Your task to perform on an android device: Open the Play Movies app and select the watchlist tab. Image 0: 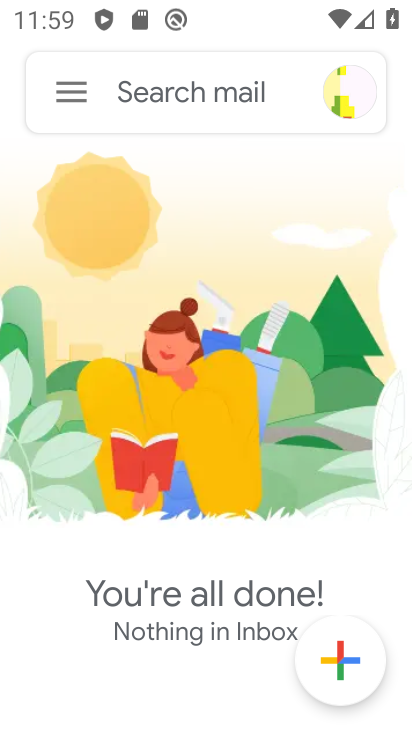
Step 0: press home button
Your task to perform on an android device: Open the Play Movies app and select the watchlist tab. Image 1: 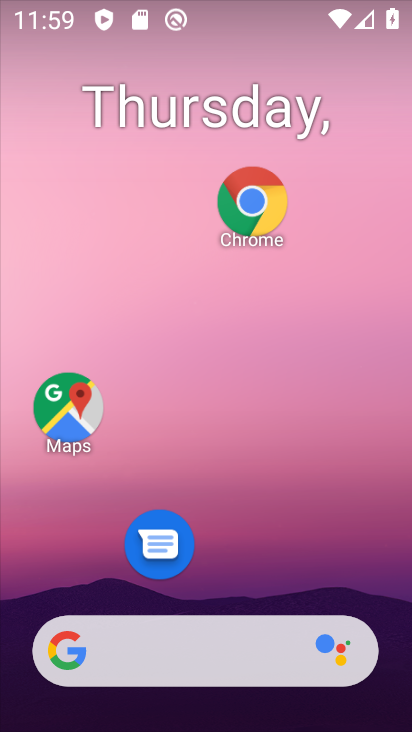
Step 1: drag from (232, 600) to (334, 3)
Your task to perform on an android device: Open the Play Movies app and select the watchlist tab. Image 2: 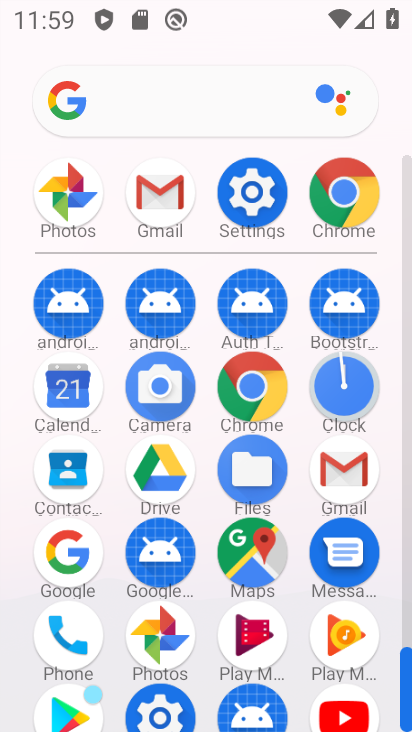
Step 2: click (258, 649)
Your task to perform on an android device: Open the Play Movies app and select the watchlist tab. Image 3: 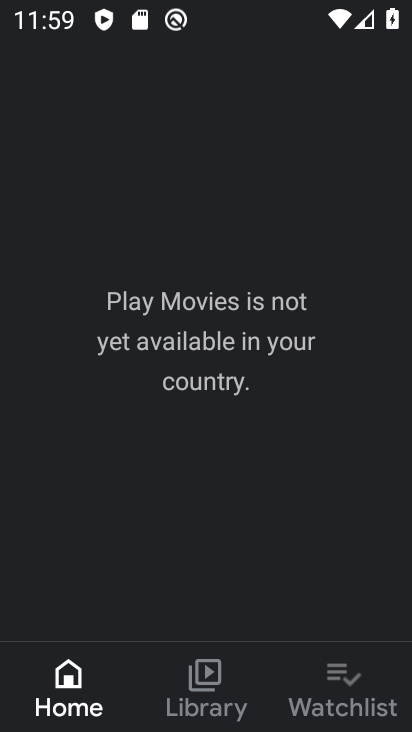
Step 3: click (332, 701)
Your task to perform on an android device: Open the Play Movies app and select the watchlist tab. Image 4: 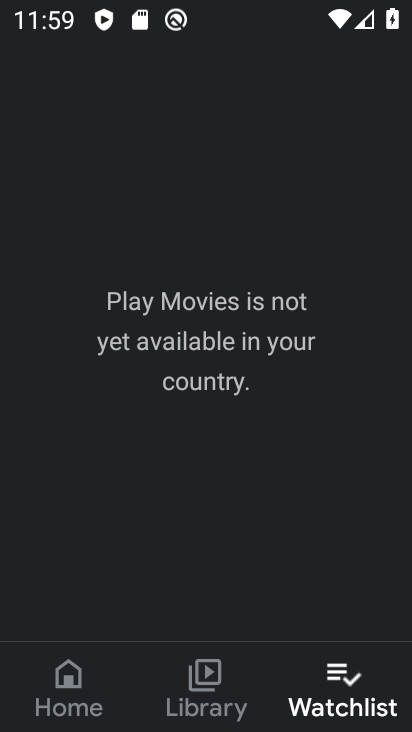
Step 4: task complete